Your task to perform on an android device: turn on priority inbox in the gmail app Image 0: 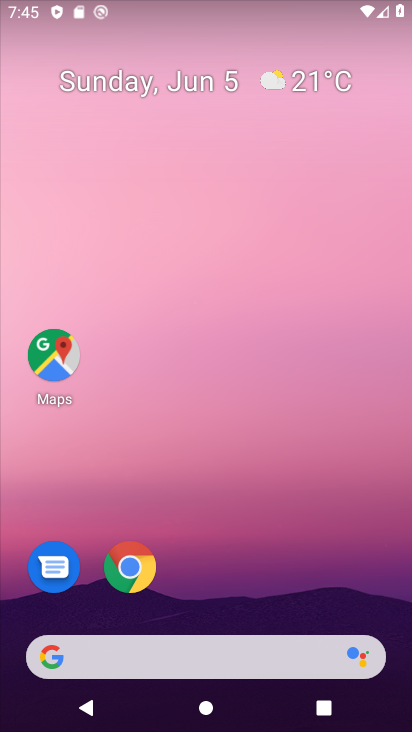
Step 0: drag from (157, 634) to (175, 459)
Your task to perform on an android device: turn on priority inbox in the gmail app Image 1: 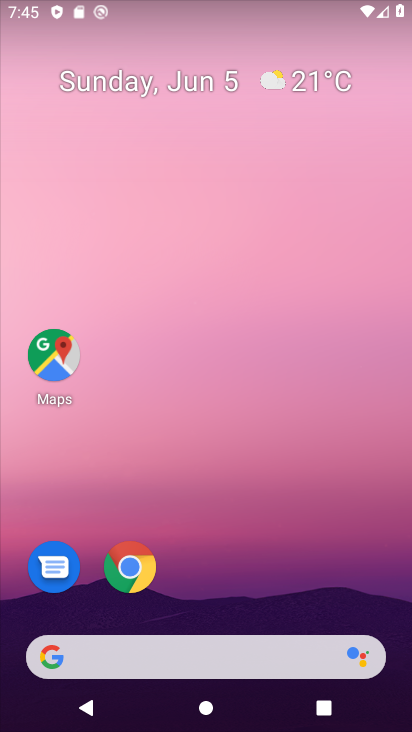
Step 1: drag from (223, 626) to (239, 310)
Your task to perform on an android device: turn on priority inbox in the gmail app Image 2: 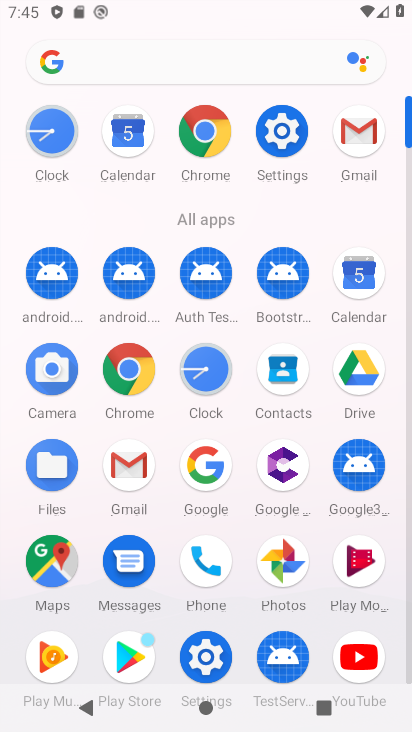
Step 2: click (144, 459)
Your task to perform on an android device: turn on priority inbox in the gmail app Image 3: 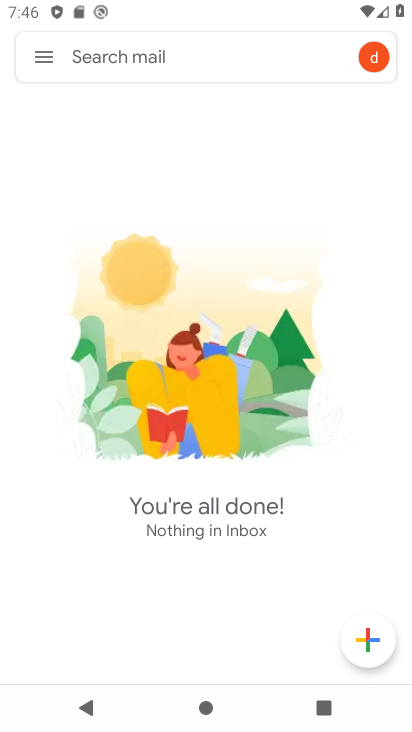
Step 3: click (43, 55)
Your task to perform on an android device: turn on priority inbox in the gmail app Image 4: 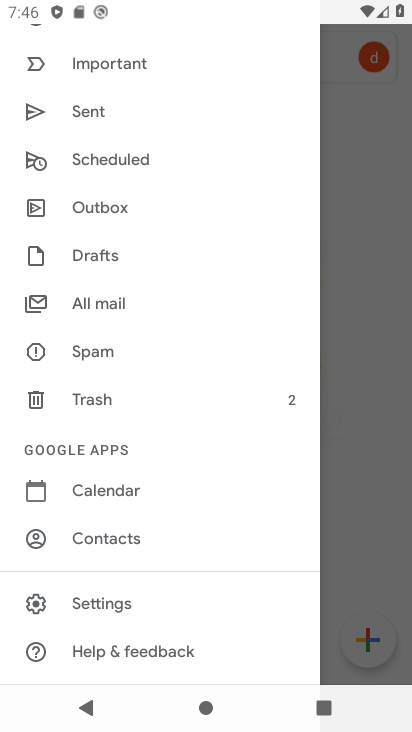
Step 4: click (93, 608)
Your task to perform on an android device: turn on priority inbox in the gmail app Image 5: 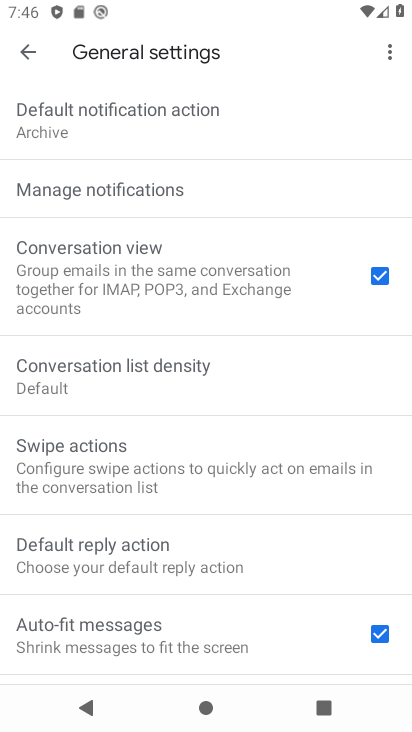
Step 5: click (28, 49)
Your task to perform on an android device: turn on priority inbox in the gmail app Image 6: 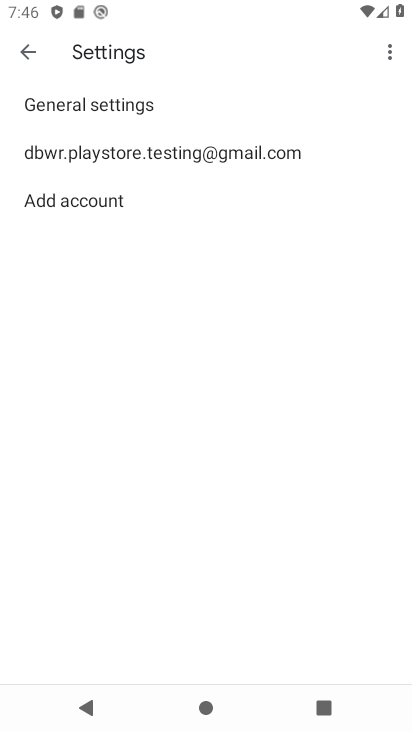
Step 6: click (105, 150)
Your task to perform on an android device: turn on priority inbox in the gmail app Image 7: 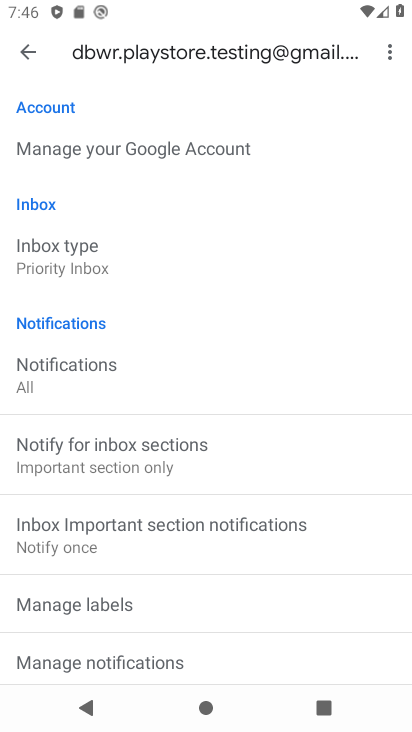
Step 7: task complete